Your task to perform on an android device: turn on wifi Image 0: 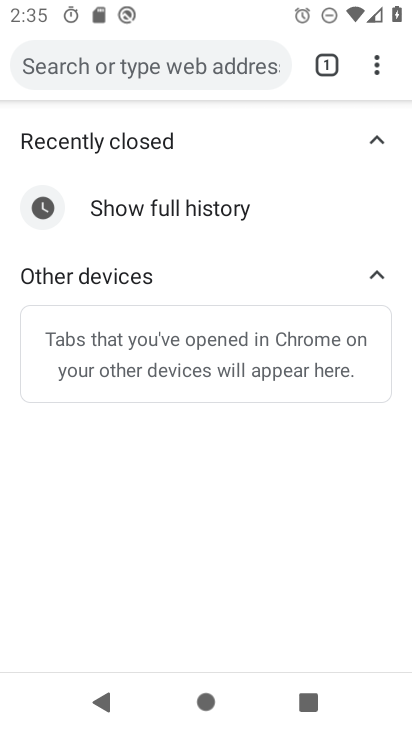
Step 0: drag from (261, 645) to (376, 85)
Your task to perform on an android device: turn on wifi Image 1: 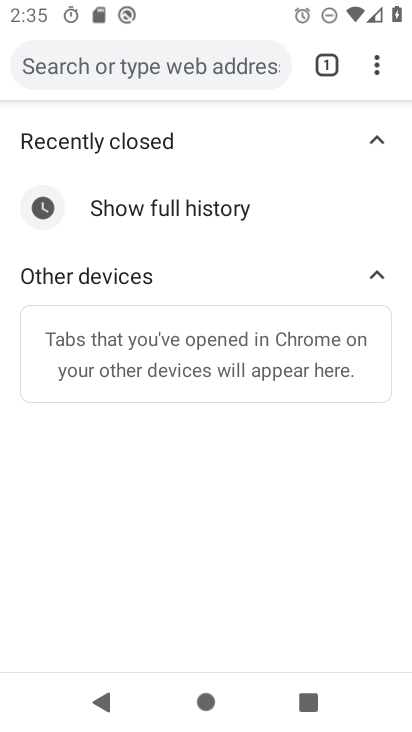
Step 1: press home button
Your task to perform on an android device: turn on wifi Image 2: 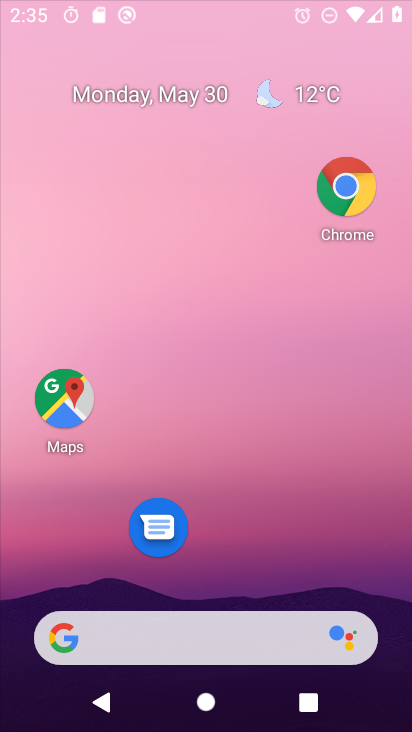
Step 2: drag from (359, 535) to (400, 562)
Your task to perform on an android device: turn on wifi Image 3: 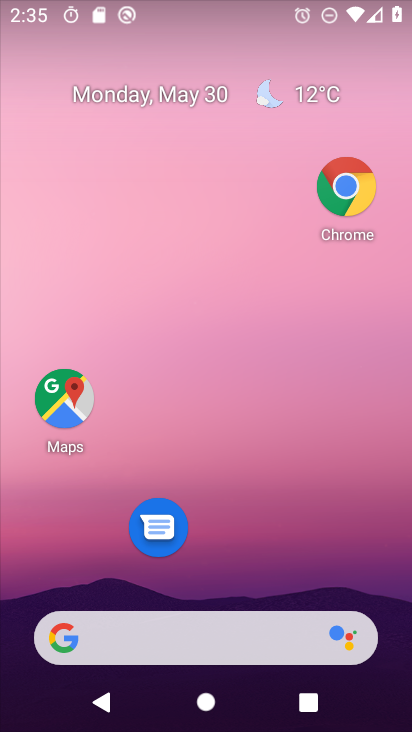
Step 3: drag from (207, 586) to (253, 182)
Your task to perform on an android device: turn on wifi Image 4: 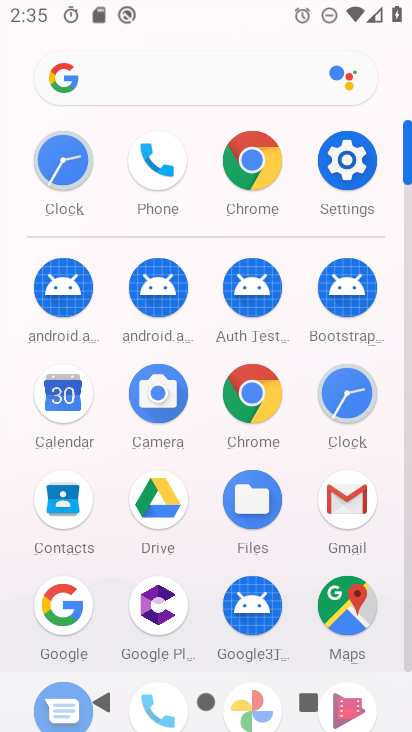
Step 4: click (356, 172)
Your task to perform on an android device: turn on wifi Image 5: 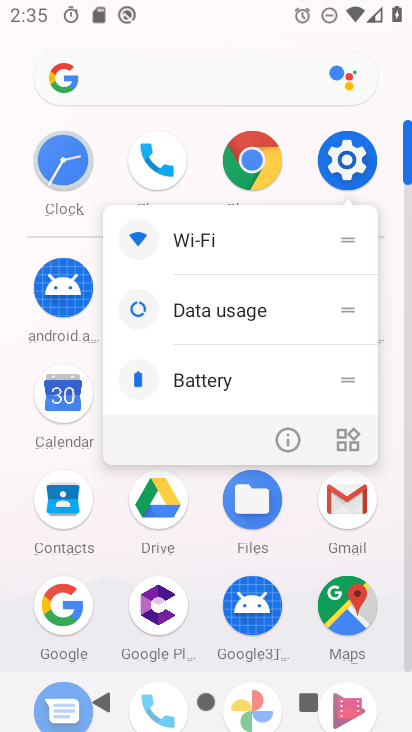
Step 5: click (243, 249)
Your task to perform on an android device: turn on wifi Image 6: 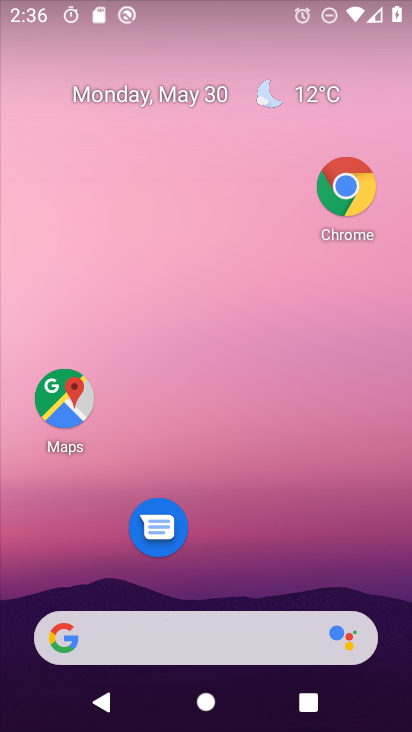
Step 6: drag from (213, 527) to (232, 195)
Your task to perform on an android device: turn on wifi Image 7: 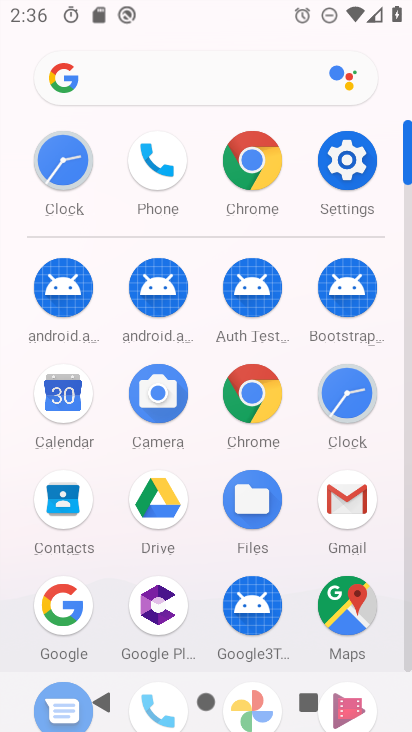
Step 7: click (332, 165)
Your task to perform on an android device: turn on wifi Image 8: 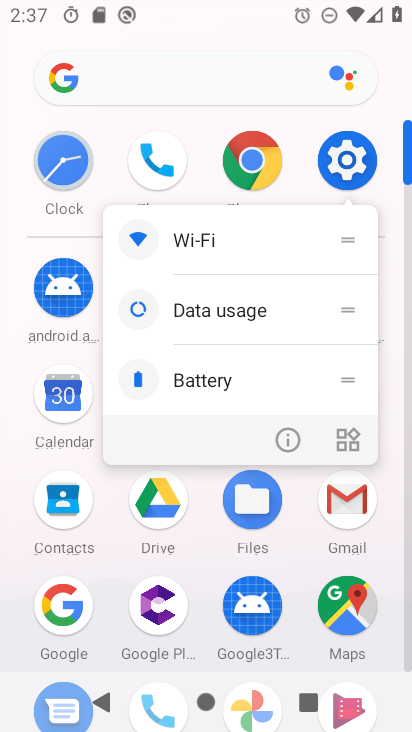
Step 8: click (240, 226)
Your task to perform on an android device: turn on wifi Image 9: 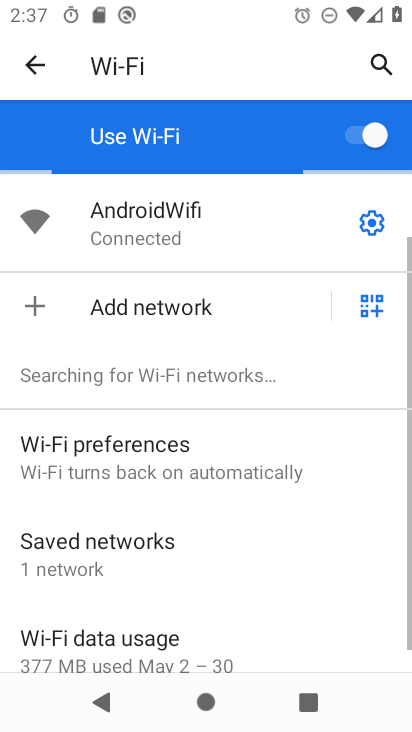
Step 9: task complete